Your task to perform on an android device: change alarm snooze length Image 0: 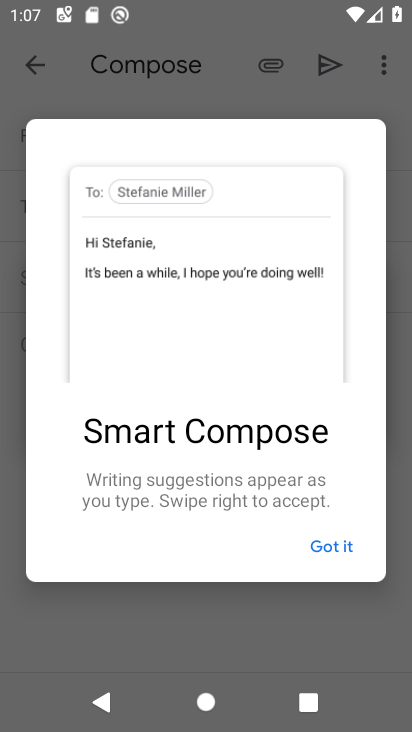
Step 0: press home button
Your task to perform on an android device: change alarm snooze length Image 1: 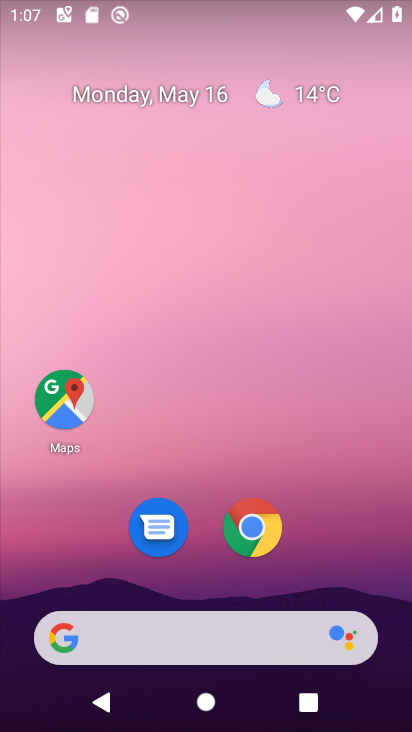
Step 1: drag from (213, 584) to (229, 20)
Your task to perform on an android device: change alarm snooze length Image 2: 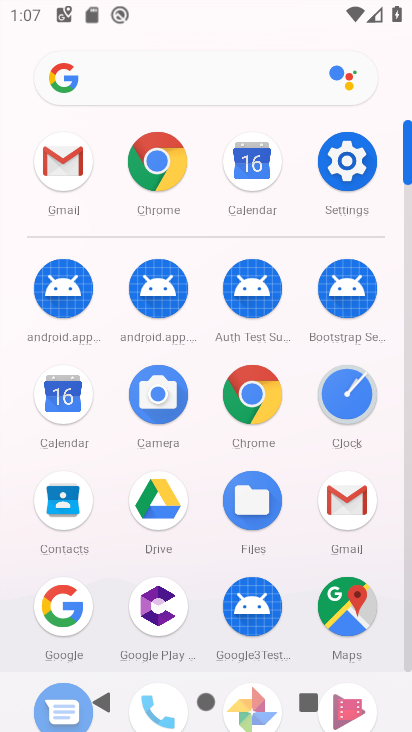
Step 2: click (348, 395)
Your task to perform on an android device: change alarm snooze length Image 3: 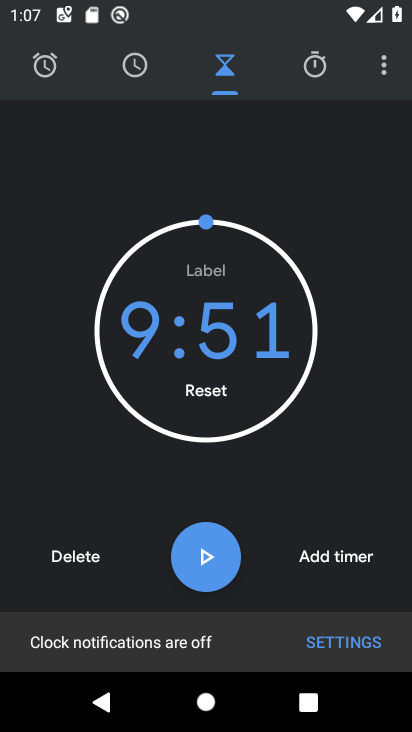
Step 3: click (374, 76)
Your task to perform on an android device: change alarm snooze length Image 4: 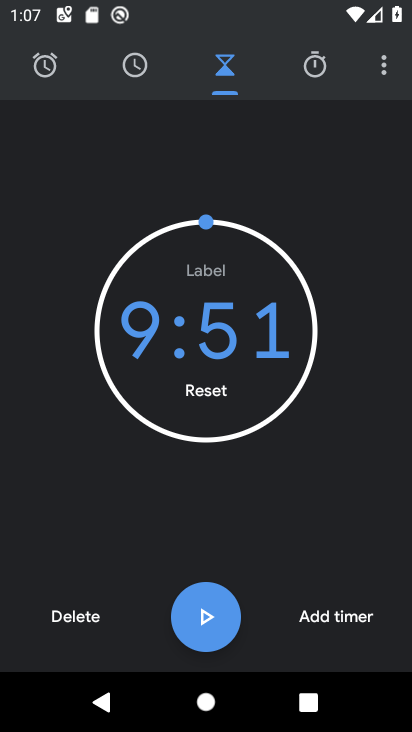
Step 4: click (387, 76)
Your task to perform on an android device: change alarm snooze length Image 5: 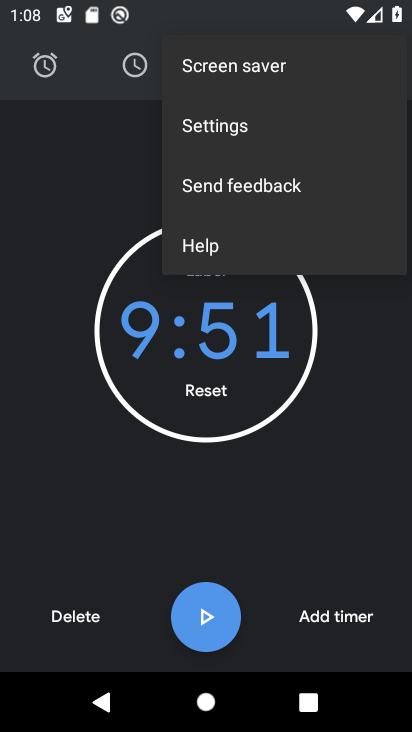
Step 5: click (385, 60)
Your task to perform on an android device: change alarm snooze length Image 6: 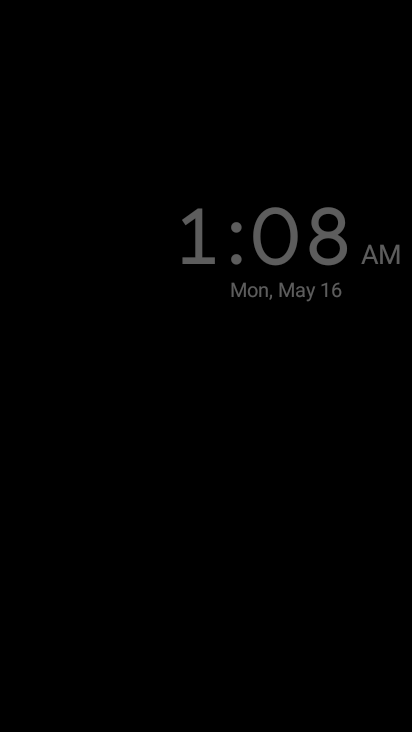
Step 6: click (378, 65)
Your task to perform on an android device: change alarm snooze length Image 7: 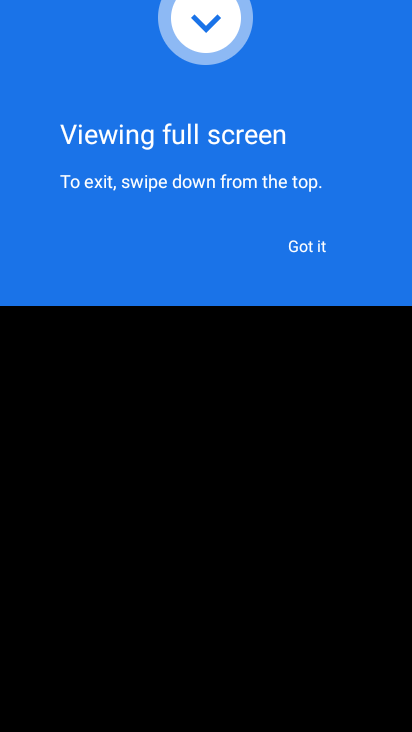
Step 7: click (308, 254)
Your task to perform on an android device: change alarm snooze length Image 8: 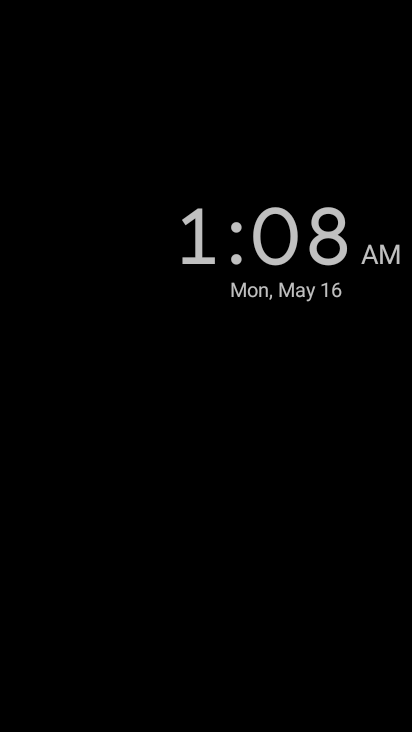
Step 8: click (374, 182)
Your task to perform on an android device: change alarm snooze length Image 9: 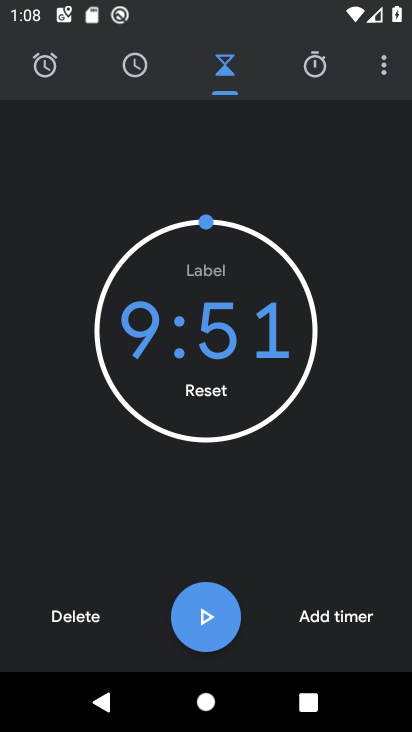
Step 9: click (384, 65)
Your task to perform on an android device: change alarm snooze length Image 10: 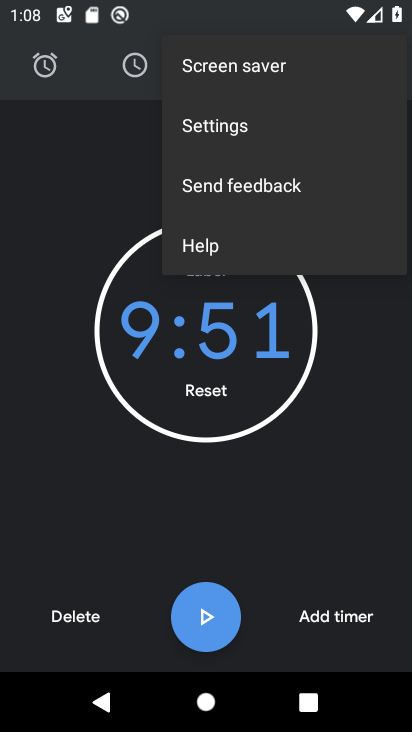
Step 10: click (214, 130)
Your task to perform on an android device: change alarm snooze length Image 11: 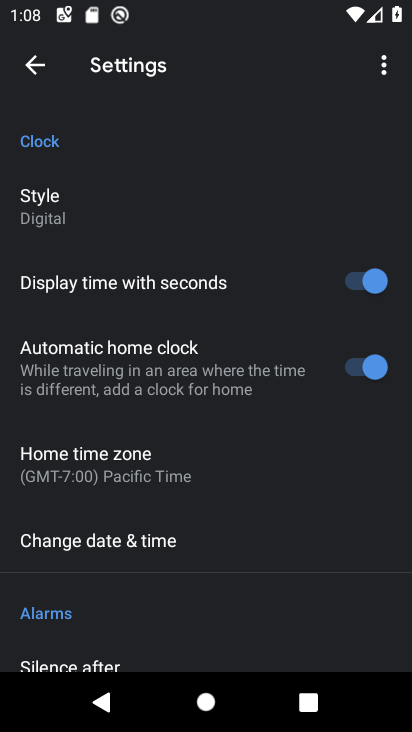
Step 11: drag from (90, 543) to (136, 197)
Your task to perform on an android device: change alarm snooze length Image 12: 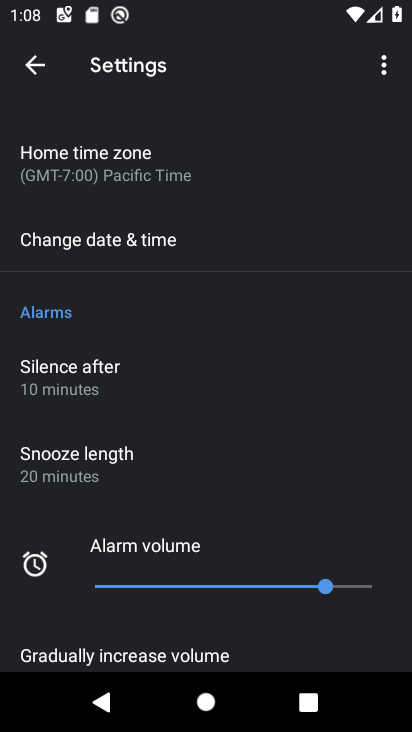
Step 12: click (111, 475)
Your task to perform on an android device: change alarm snooze length Image 13: 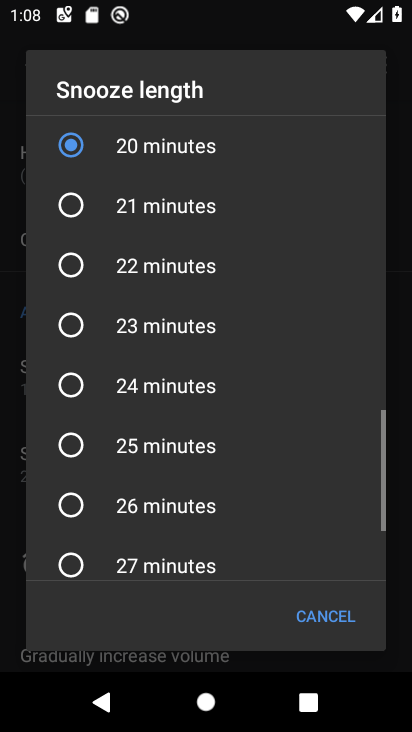
Step 13: click (71, 441)
Your task to perform on an android device: change alarm snooze length Image 14: 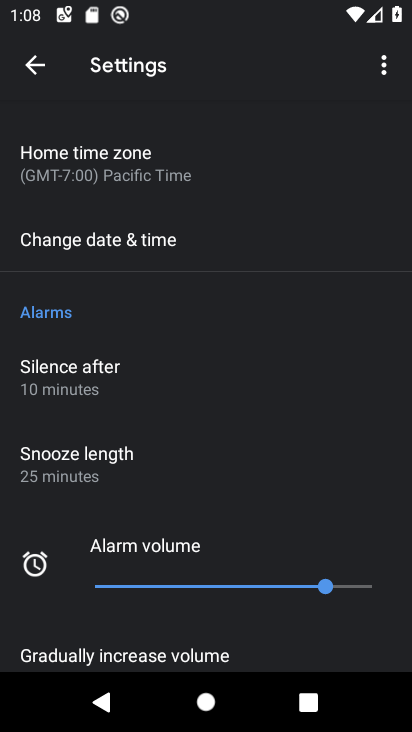
Step 14: task complete